Your task to perform on an android device: turn off notifications settings in the gmail app Image 0: 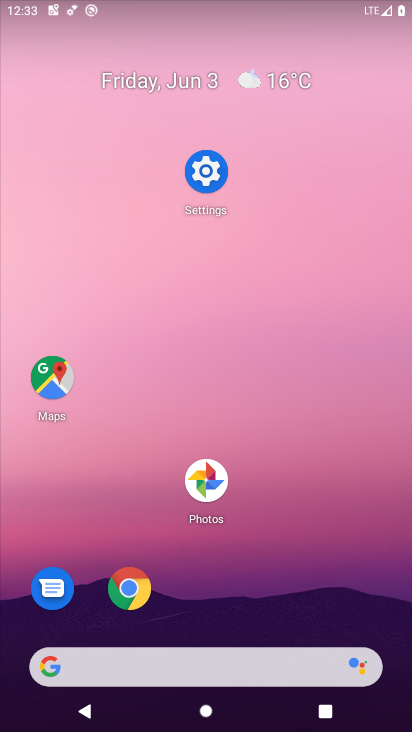
Step 0: drag from (205, 632) to (394, 589)
Your task to perform on an android device: turn off notifications settings in the gmail app Image 1: 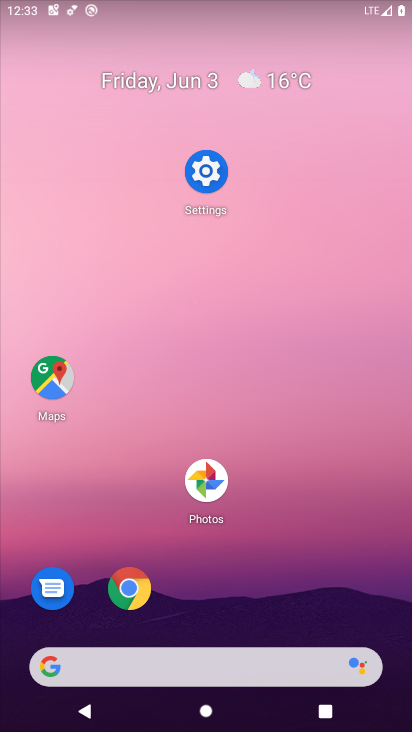
Step 1: drag from (220, 605) to (212, 22)
Your task to perform on an android device: turn off notifications settings in the gmail app Image 2: 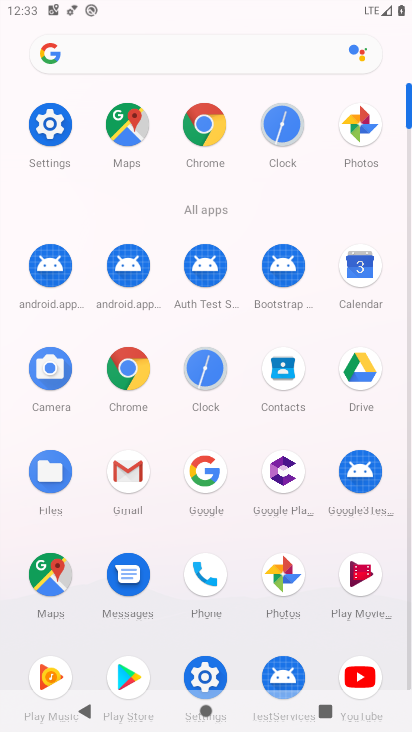
Step 2: click (126, 450)
Your task to perform on an android device: turn off notifications settings in the gmail app Image 3: 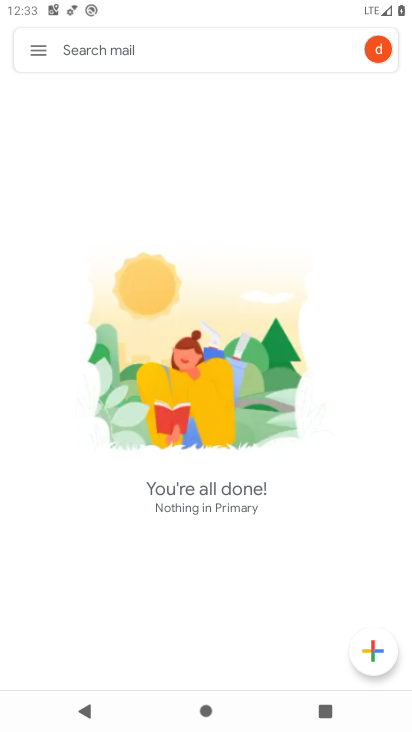
Step 3: drag from (227, 523) to (330, 166)
Your task to perform on an android device: turn off notifications settings in the gmail app Image 4: 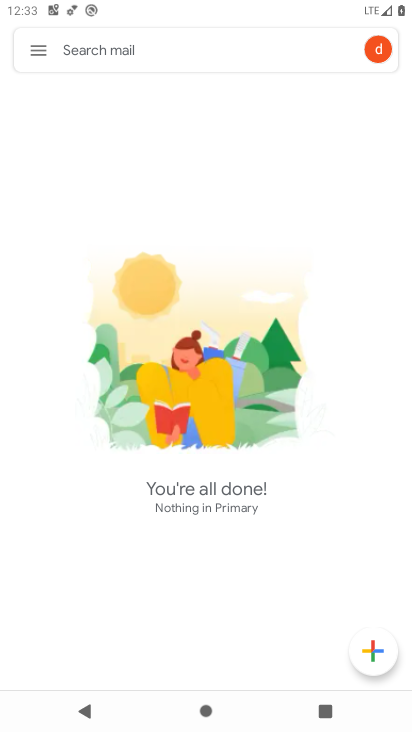
Step 4: click (30, 55)
Your task to perform on an android device: turn off notifications settings in the gmail app Image 5: 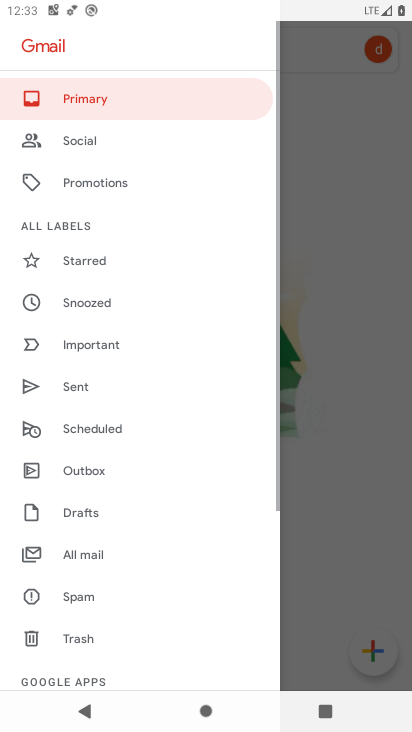
Step 5: drag from (171, 400) to (215, 99)
Your task to perform on an android device: turn off notifications settings in the gmail app Image 6: 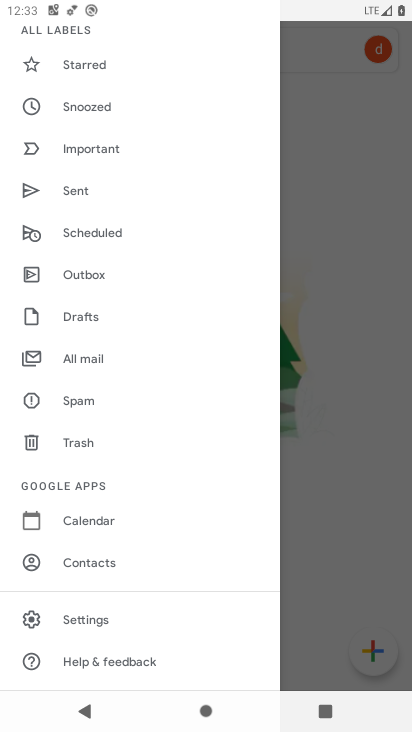
Step 6: click (77, 620)
Your task to perform on an android device: turn off notifications settings in the gmail app Image 7: 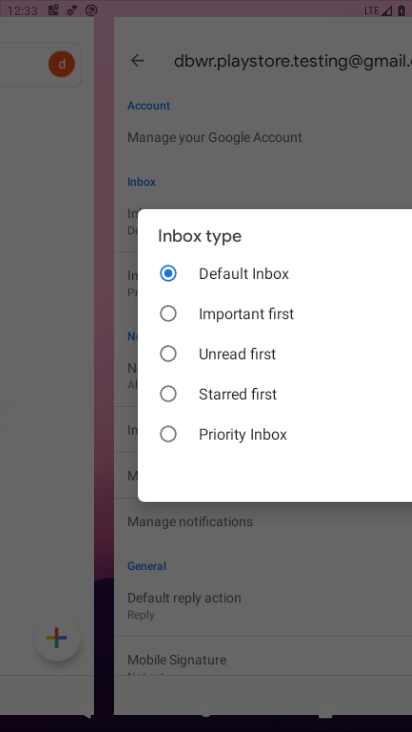
Step 7: drag from (133, 500) to (222, 37)
Your task to perform on an android device: turn off notifications settings in the gmail app Image 8: 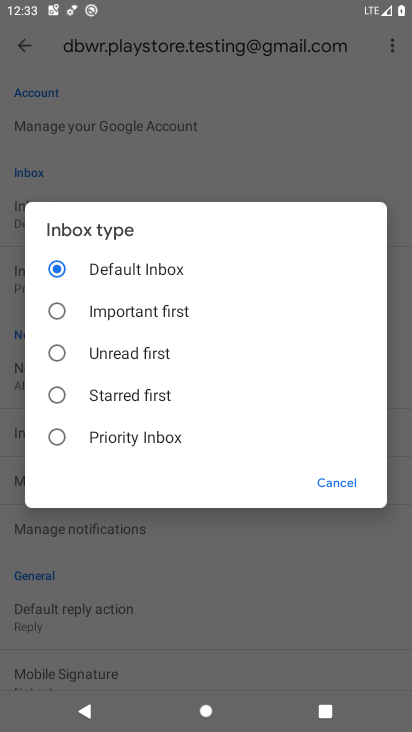
Step 8: click (331, 482)
Your task to perform on an android device: turn off notifications settings in the gmail app Image 9: 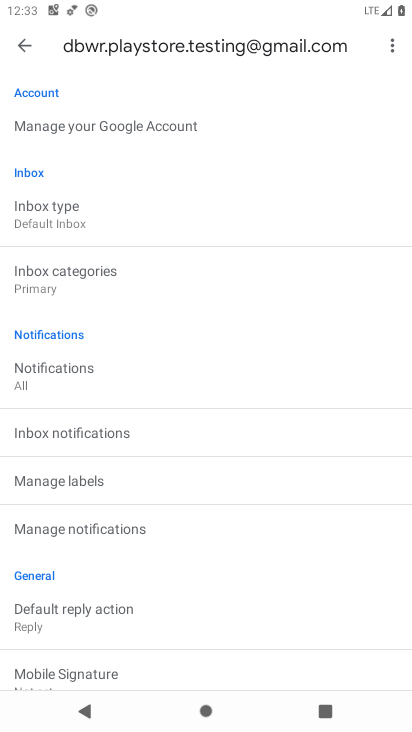
Step 9: click (106, 541)
Your task to perform on an android device: turn off notifications settings in the gmail app Image 10: 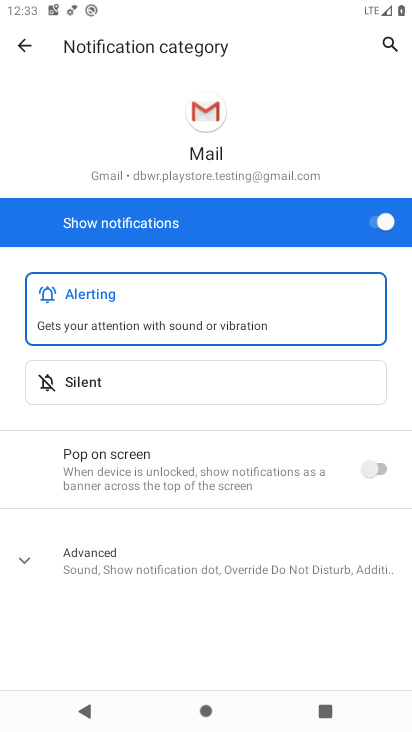
Step 10: drag from (220, 534) to (275, 64)
Your task to perform on an android device: turn off notifications settings in the gmail app Image 11: 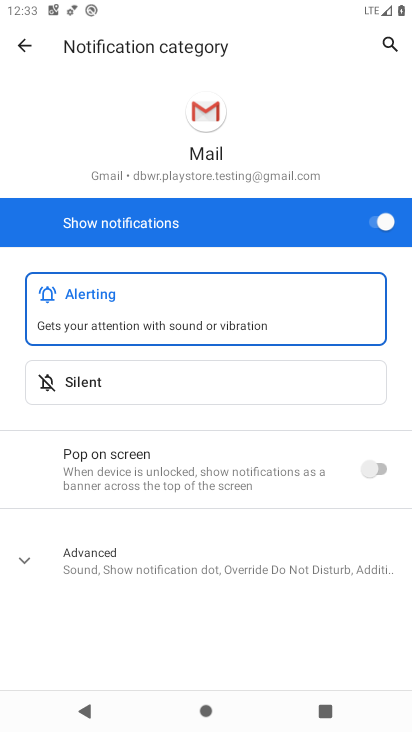
Step 11: click (380, 218)
Your task to perform on an android device: turn off notifications settings in the gmail app Image 12: 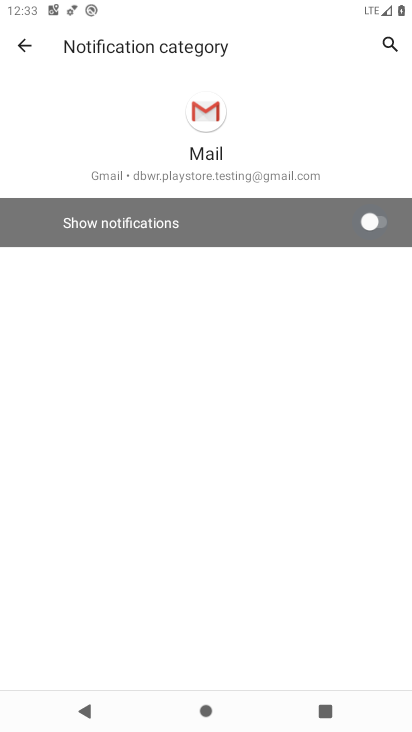
Step 12: task complete